Your task to perform on an android device: Go to CNN.com Image 0: 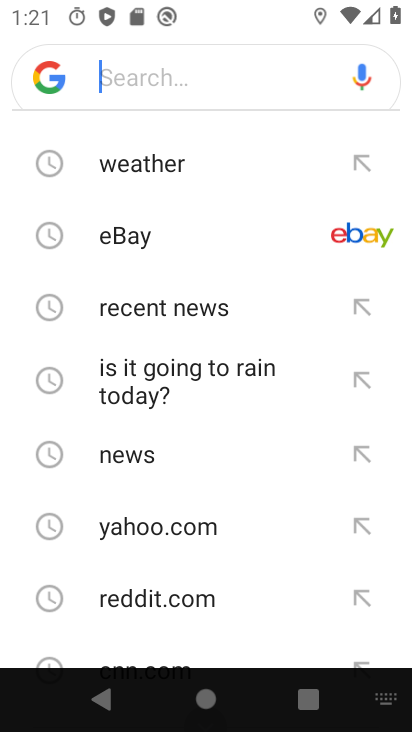
Step 0: press home button
Your task to perform on an android device: Go to CNN.com Image 1: 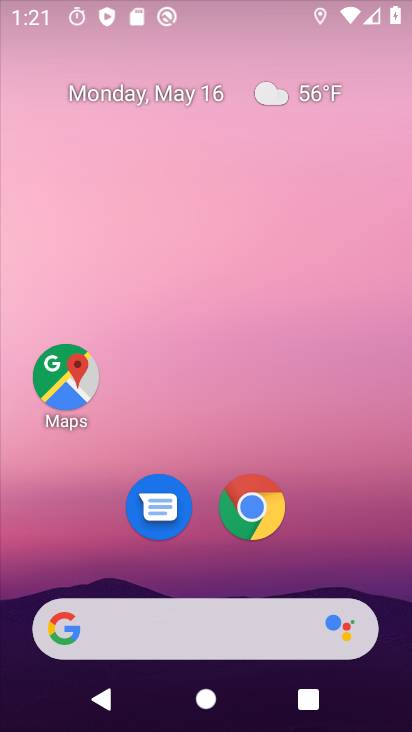
Step 1: drag from (211, 562) to (227, 105)
Your task to perform on an android device: Go to CNN.com Image 2: 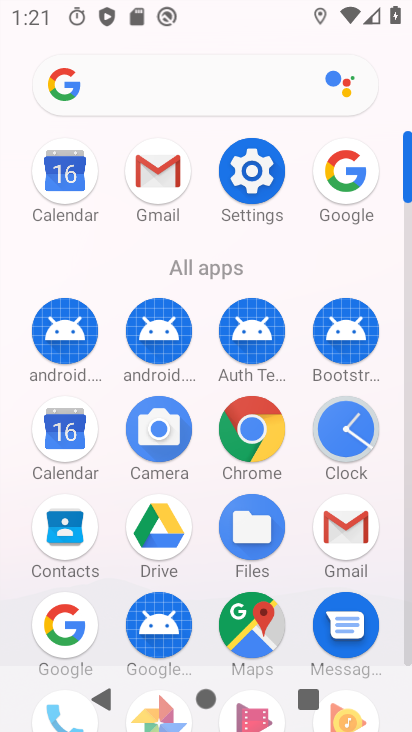
Step 2: click (67, 634)
Your task to perform on an android device: Go to CNN.com Image 3: 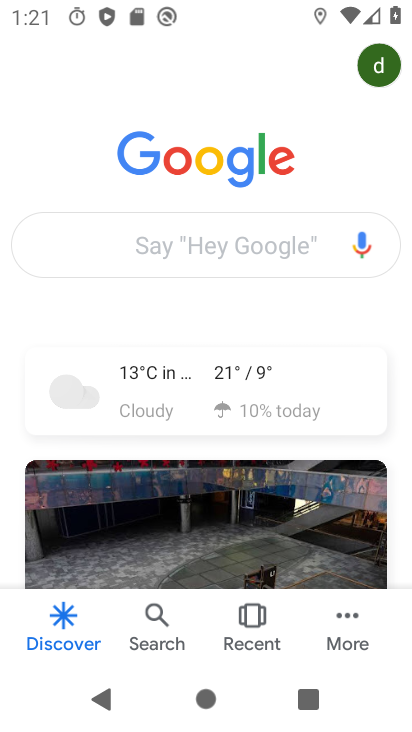
Step 3: click (178, 232)
Your task to perform on an android device: Go to CNN.com Image 4: 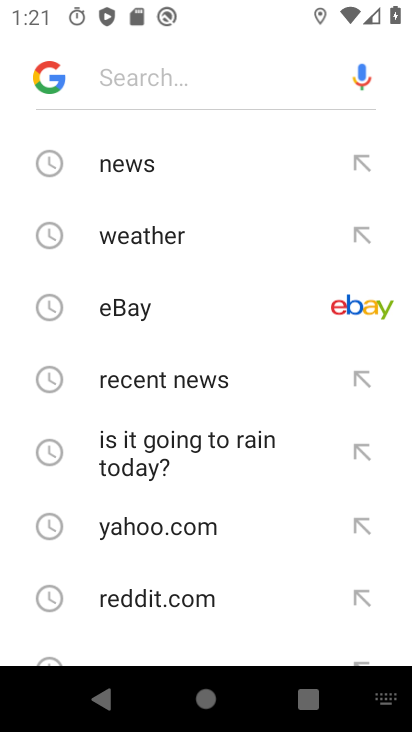
Step 4: drag from (202, 536) to (190, 245)
Your task to perform on an android device: Go to CNN.com Image 5: 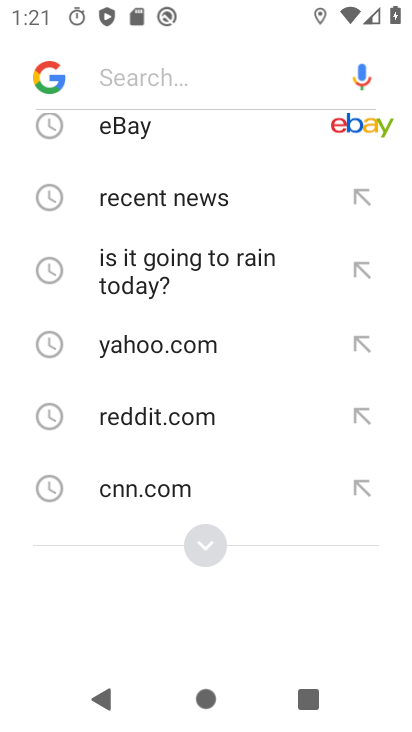
Step 5: click (133, 494)
Your task to perform on an android device: Go to CNN.com Image 6: 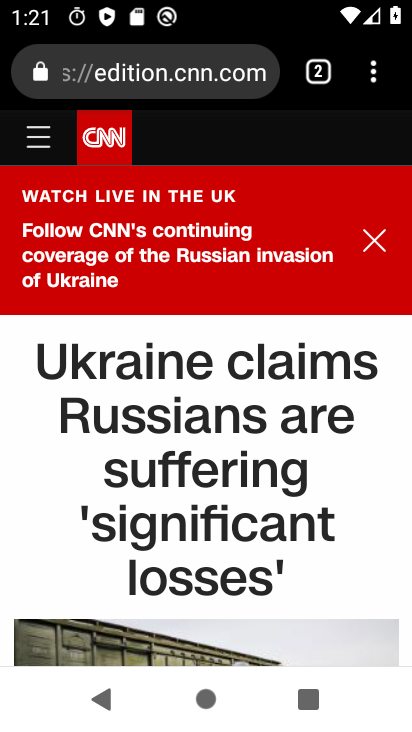
Step 6: task complete